Your task to perform on an android device: change the clock display to analog Image 0: 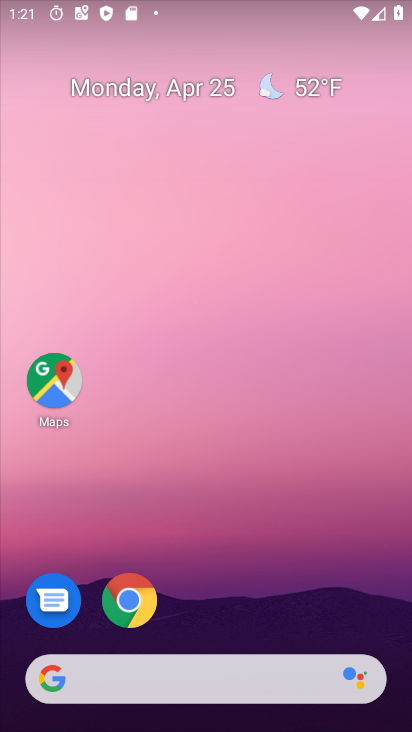
Step 0: drag from (163, 675) to (305, 82)
Your task to perform on an android device: change the clock display to analog Image 1: 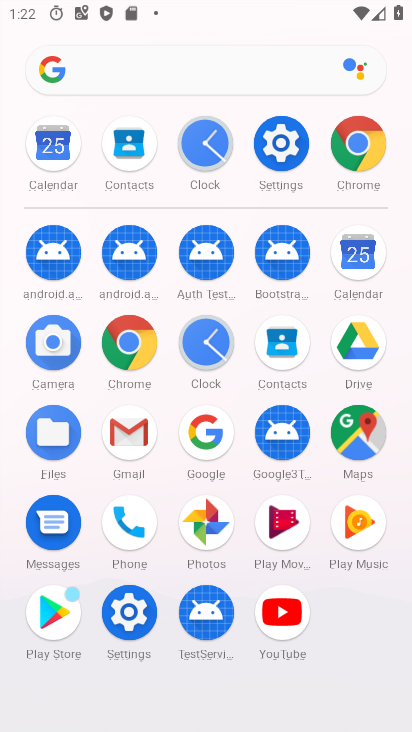
Step 1: click (205, 162)
Your task to perform on an android device: change the clock display to analog Image 2: 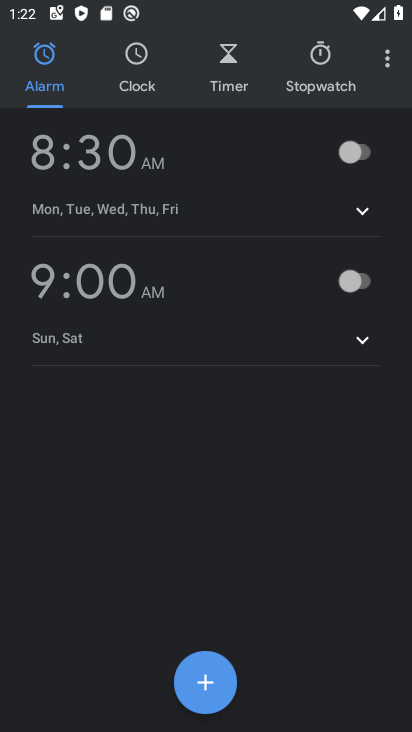
Step 2: click (385, 63)
Your task to perform on an android device: change the clock display to analog Image 3: 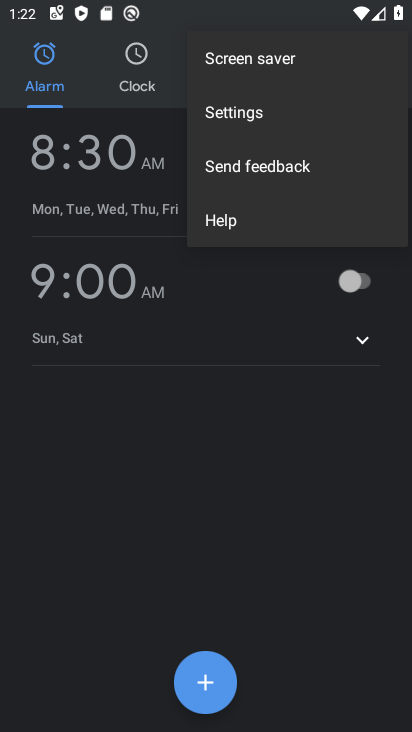
Step 3: click (246, 118)
Your task to perform on an android device: change the clock display to analog Image 4: 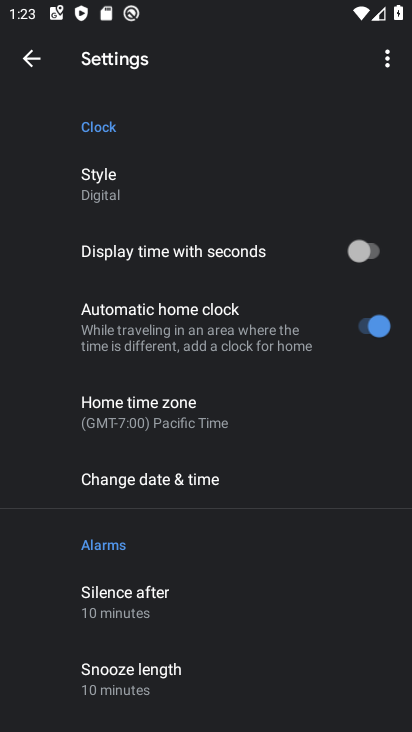
Step 4: click (105, 192)
Your task to perform on an android device: change the clock display to analog Image 5: 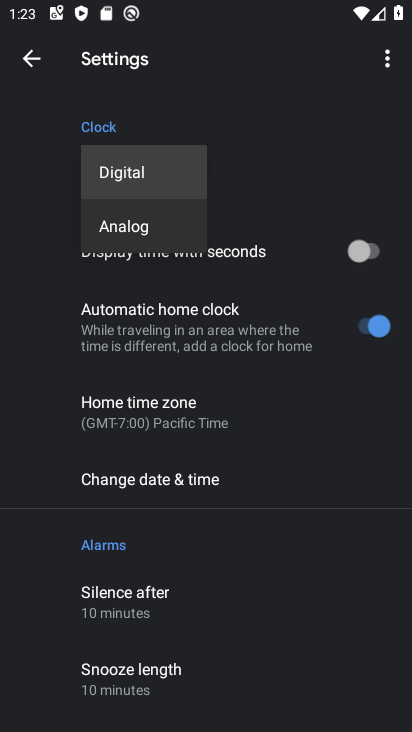
Step 5: click (152, 227)
Your task to perform on an android device: change the clock display to analog Image 6: 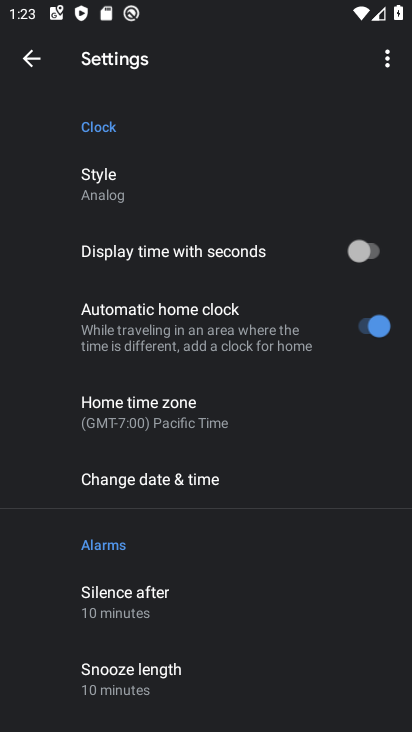
Step 6: task complete